Your task to perform on an android device: Search for "usb-b" on ebay, select the first entry, add it to the cart, then select checkout. Image 0: 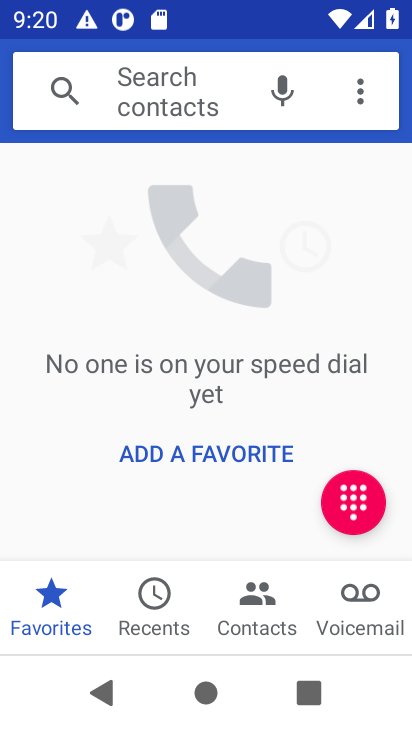
Step 0: press home button
Your task to perform on an android device: Search for "usb-b" on ebay, select the first entry, add it to the cart, then select checkout. Image 1: 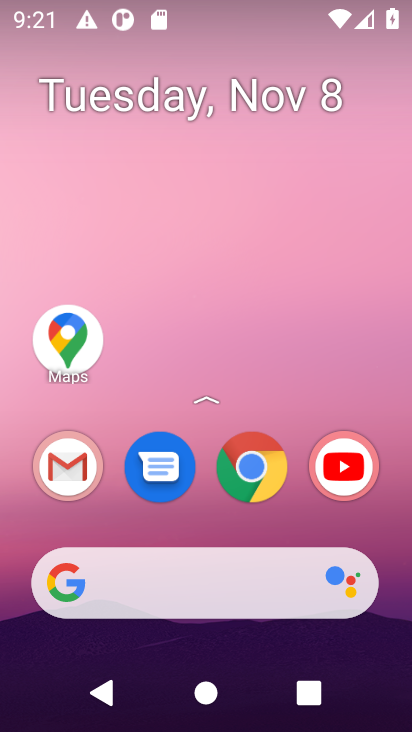
Step 1: click (219, 611)
Your task to perform on an android device: Search for "usb-b" on ebay, select the first entry, add it to the cart, then select checkout. Image 2: 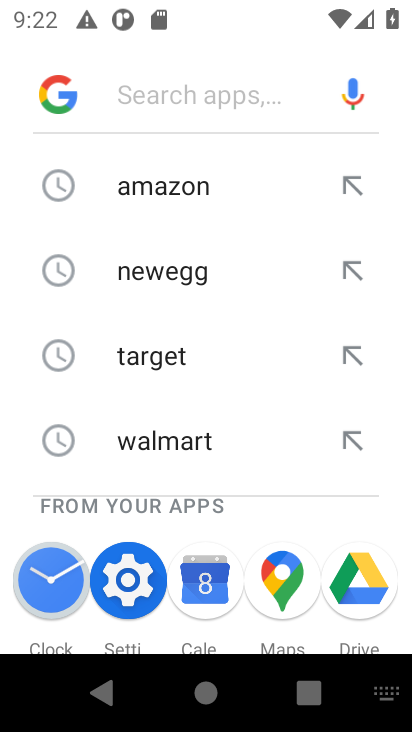
Step 2: type "ebay"
Your task to perform on an android device: Search for "usb-b" on ebay, select the first entry, add it to the cart, then select checkout. Image 3: 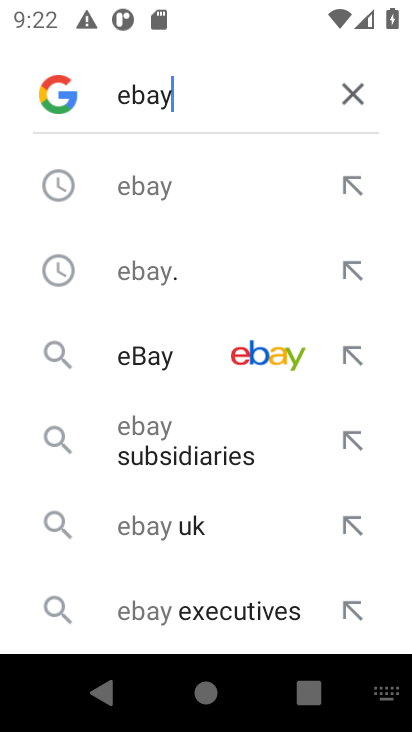
Step 3: click (200, 336)
Your task to perform on an android device: Search for "usb-b" on ebay, select the first entry, add it to the cart, then select checkout. Image 4: 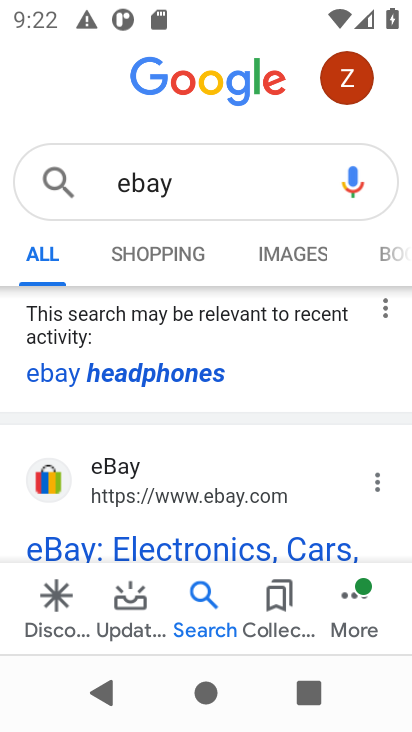
Step 4: click (126, 507)
Your task to perform on an android device: Search for "usb-b" on ebay, select the first entry, add it to the cart, then select checkout. Image 5: 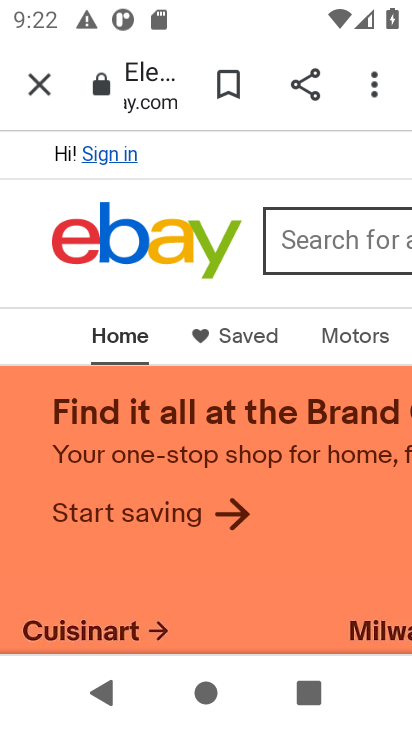
Step 5: task complete